Your task to perform on an android device: open app "DoorDash - Dasher" (install if not already installed) and enter user name: "resistor@inbox.com" and password: "cholera" Image 0: 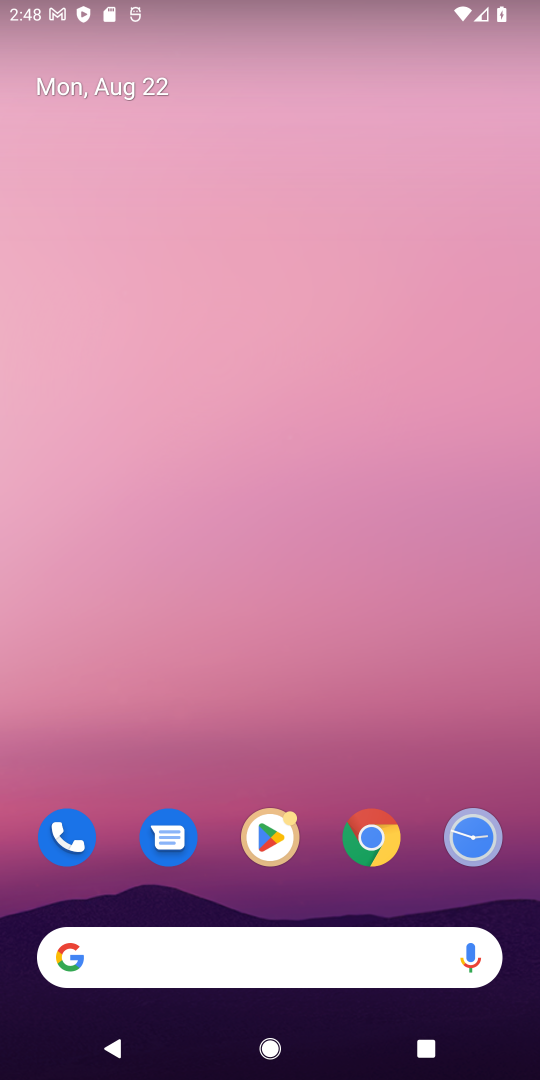
Step 0: drag from (514, 867) to (263, 8)
Your task to perform on an android device: open app "DoorDash - Dasher" (install if not already installed) and enter user name: "resistor@inbox.com" and password: "cholera" Image 1: 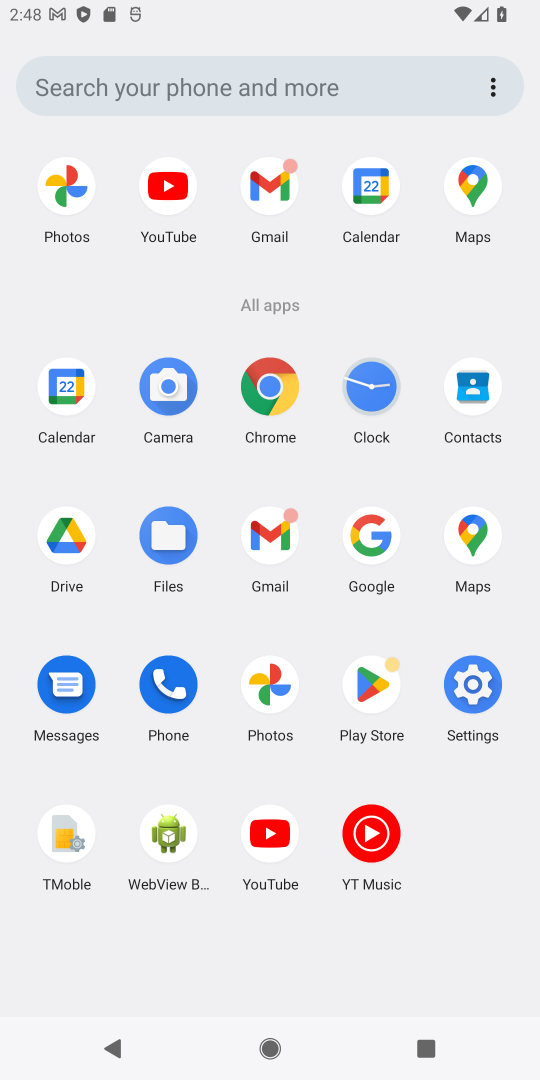
Step 1: click (371, 690)
Your task to perform on an android device: open app "DoorDash - Dasher" (install if not already installed) and enter user name: "resistor@inbox.com" and password: "cholera" Image 2: 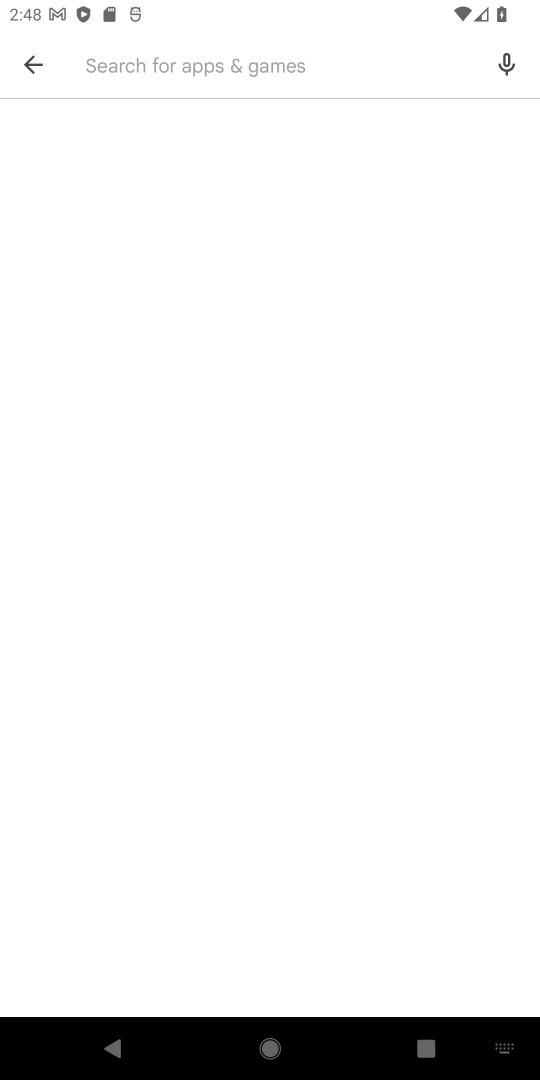
Step 2: click (123, 65)
Your task to perform on an android device: open app "DoorDash - Dasher" (install if not already installed) and enter user name: "resistor@inbox.com" and password: "cholera" Image 3: 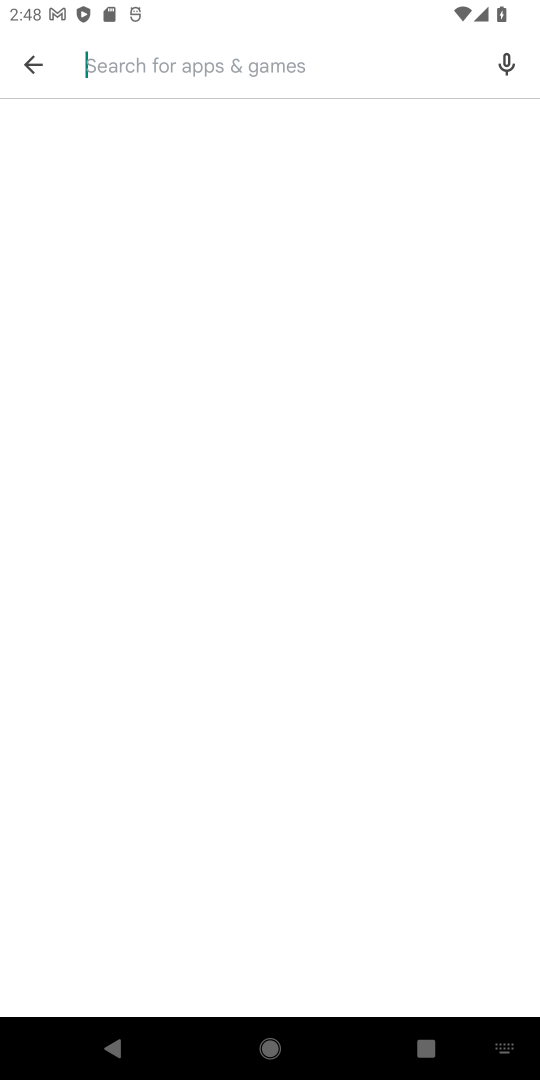
Step 3: type "DoorDash - Dasher"
Your task to perform on an android device: open app "DoorDash - Dasher" (install if not already installed) and enter user name: "resistor@inbox.com" and password: "cholera" Image 4: 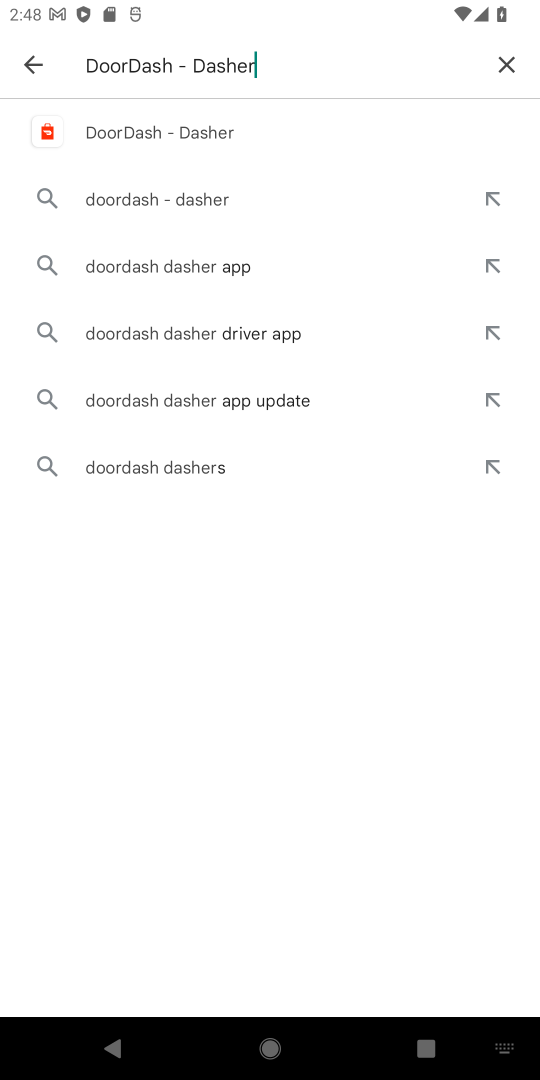
Step 4: click (181, 121)
Your task to perform on an android device: open app "DoorDash - Dasher" (install if not already installed) and enter user name: "resistor@inbox.com" and password: "cholera" Image 5: 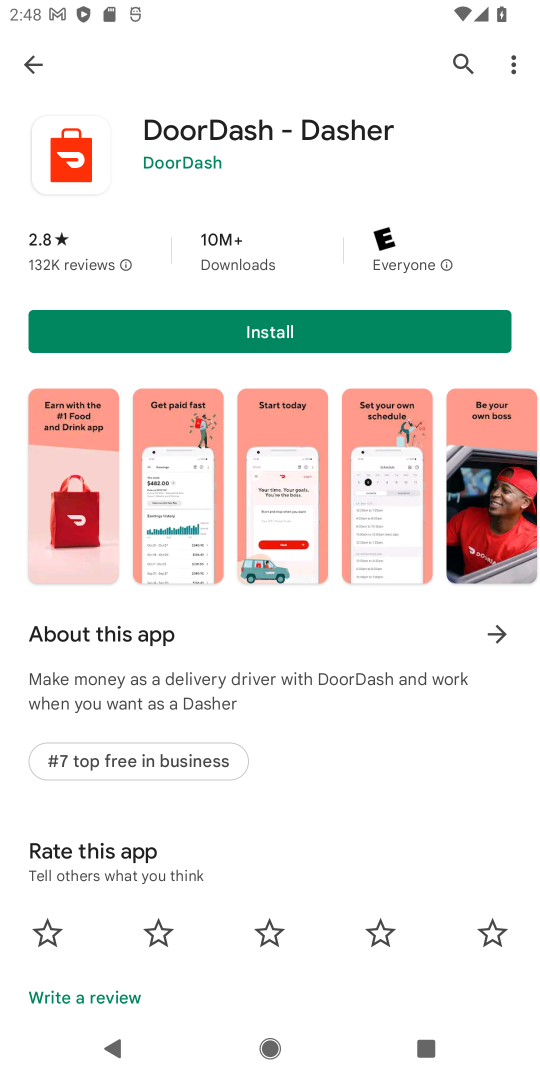
Step 5: task complete